Your task to perform on an android device: Open Reddit.com Image 0: 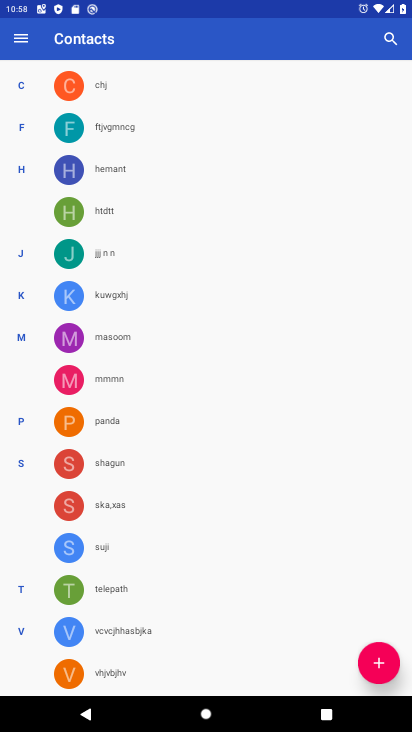
Step 0: press home button
Your task to perform on an android device: Open Reddit.com Image 1: 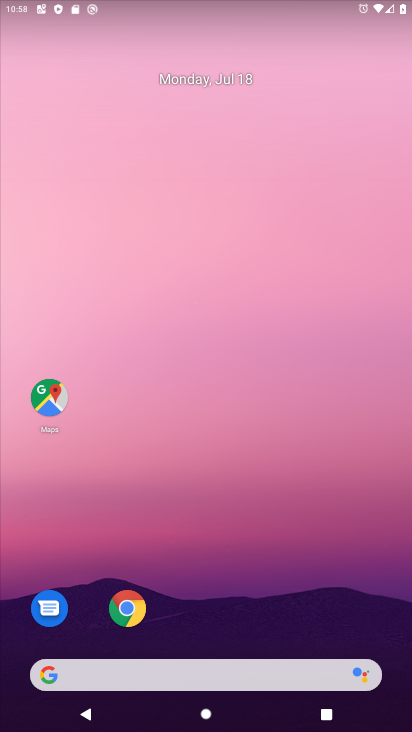
Step 1: click (136, 602)
Your task to perform on an android device: Open Reddit.com Image 2: 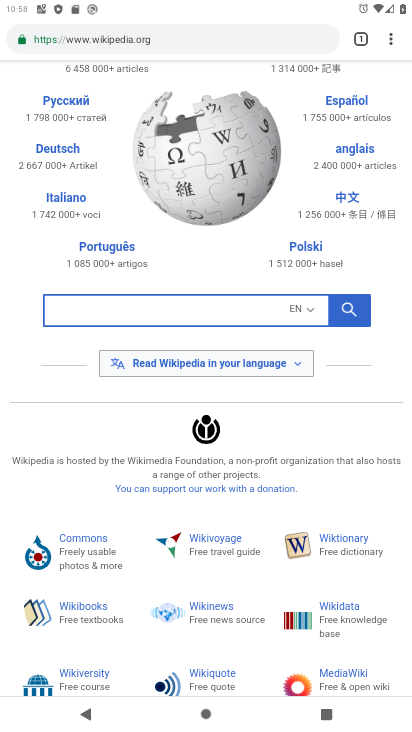
Step 2: click (199, 39)
Your task to perform on an android device: Open Reddit.com Image 3: 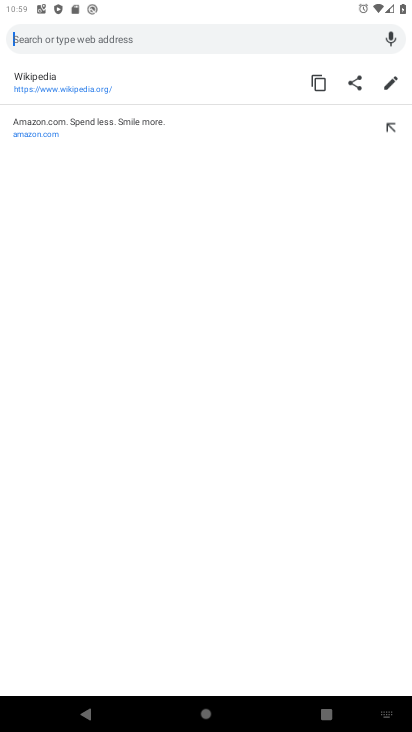
Step 3: type "reddit.com"
Your task to perform on an android device: Open Reddit.com Image 4: 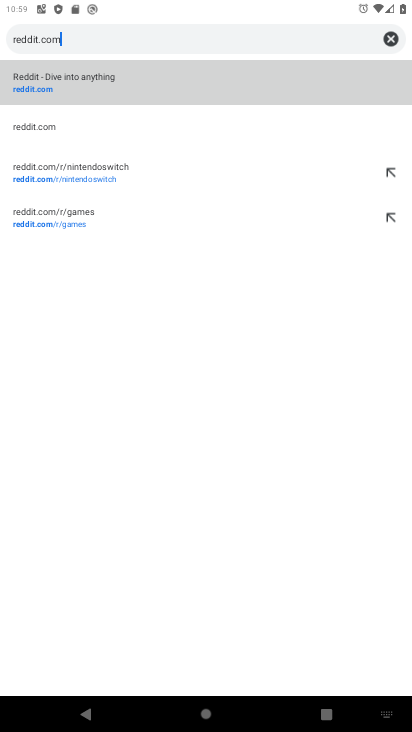
Step 4: click (62, 132)
Your task to perform on an android device: Open Reddit.com Image 5: 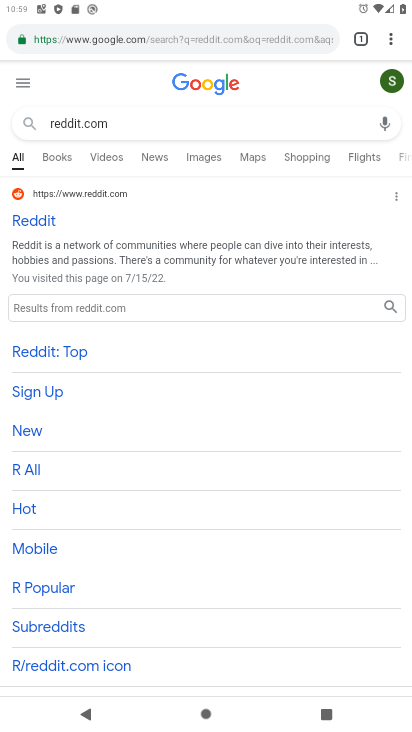
Step 5: task complete